Your task to perform on an android device: Open Youtube and go to "Your channel" Image 0: 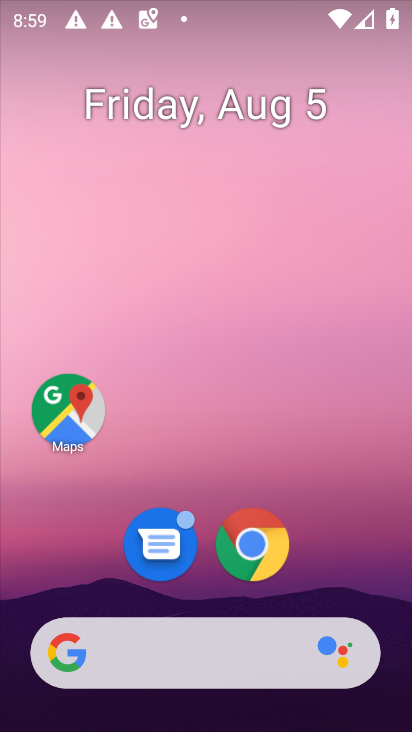
Step 0: drag from (315, 558) to (259, 62)
Your task to perform on an android device: Open Youtube and go to "Your channel" Image 1: 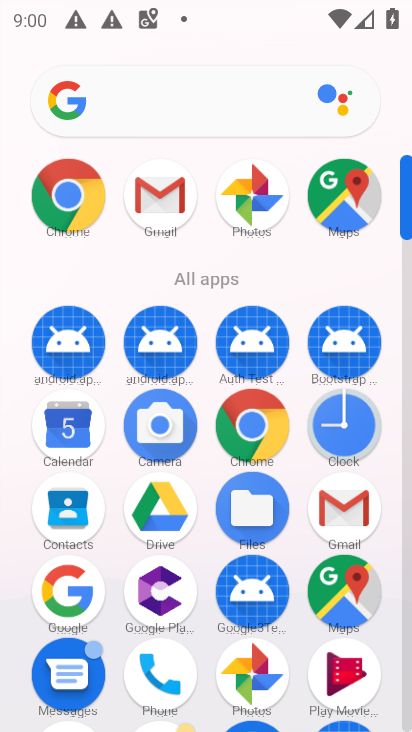
Step 1: drag from (407, 518) to (392, 134)
Your task to perform on an android device: Open Youtube and go to "Your channel" Image 2: 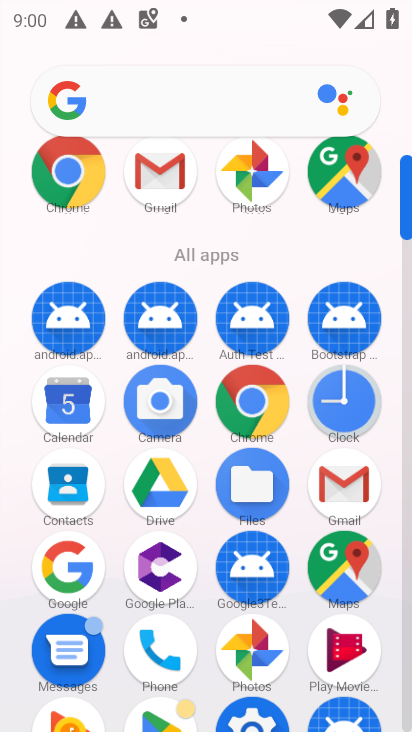
Step 2: drag from (391, 569) to (301, 245)
Your task to perform on an android device: Open Youtube and go to "Your channel" Image 3: 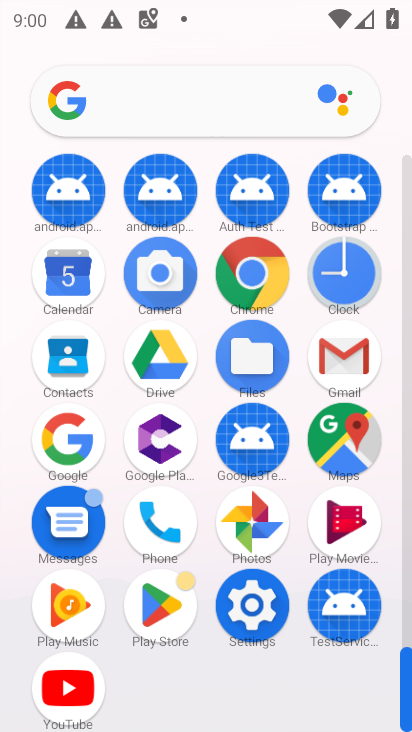
Step 3: click (84, 713)
Your task to perform on an android device: Open Youtube and go to "Your channel" Image 4: 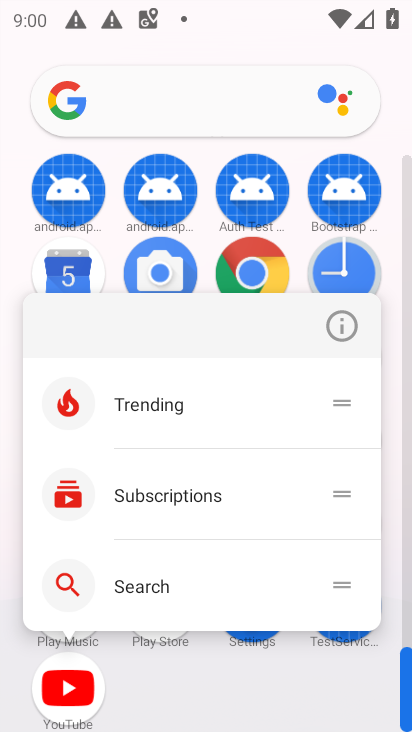
Step 4: click (78, 692)
Your task to perform on an android device: Open Youtube and go to "Your channel" Image 5: 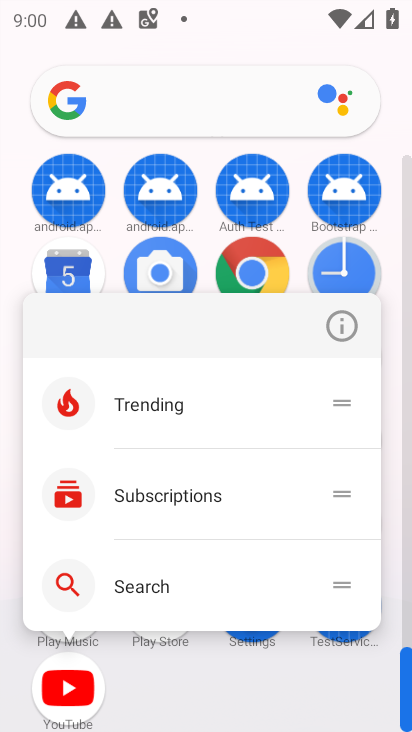
Step 5: click (71, 683)
Your task to perform on an android device: Open Youtube and go to "Your channel" Image 6: 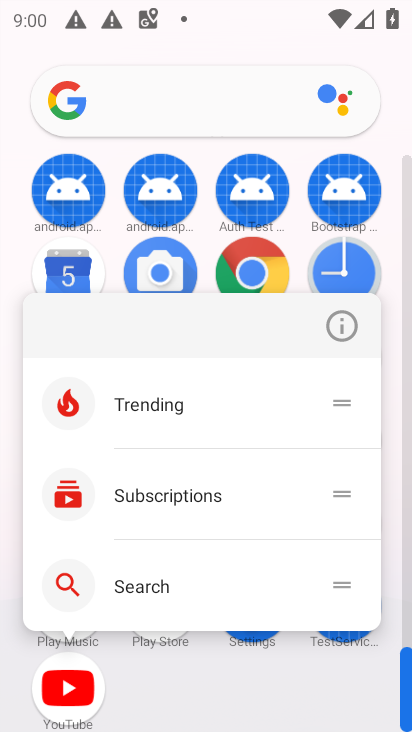
Step 6: click (65, 675)
Your task to perform on an android device: Open Youtube and go to "Your channel" Image 7: 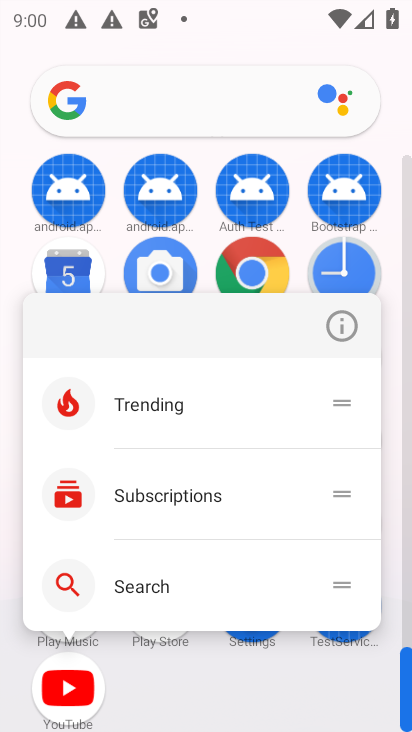
Step 7: click (65, 675)
Your task to perform on an android device: Open Youtube and go to "Your channel" Image 8: 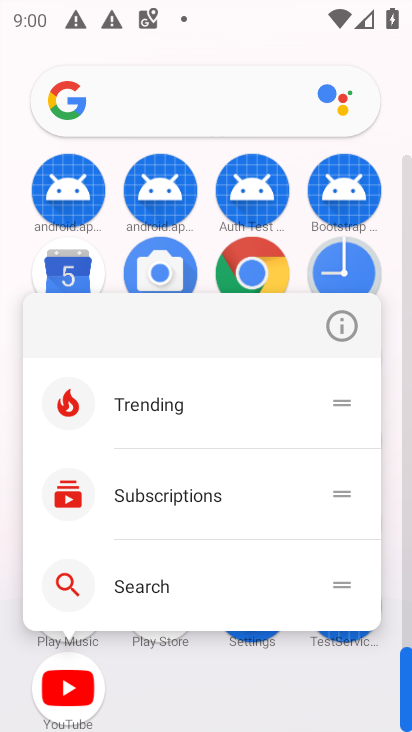
Step 8: click (65, 675)
Your task to perform on an android device: Open Youtube and go to "Your channel" Image 9: 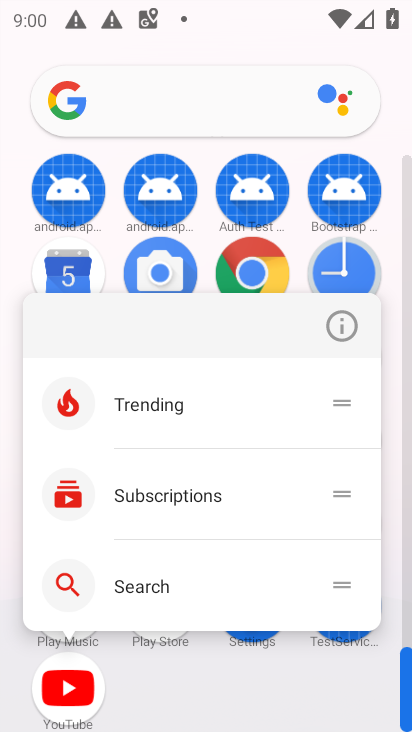
Step 9: click (61, 675)
Your task to perform on an android device: Open Youtube and go to "Your channel" Image 10: 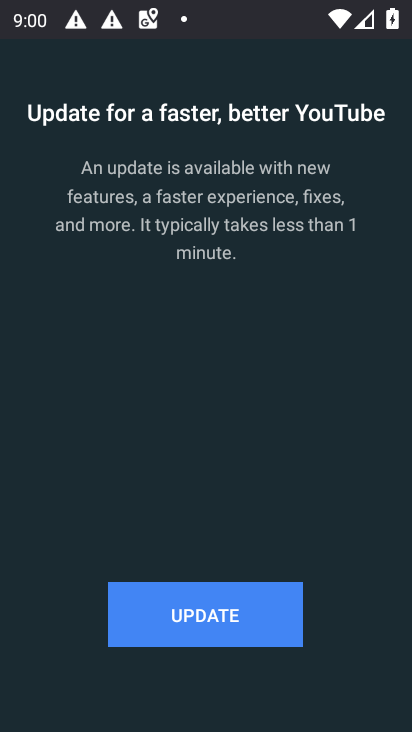
Step 10: click (203, 617)
Your task to perform on an android device: Open Youtube and go to "Your channel" Image 11: 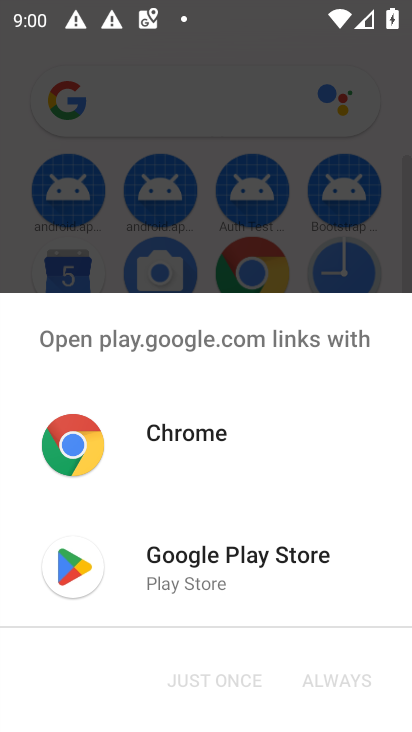
Step 11: click (186, 584)
Your task to perform on an android device: Open Youtube and go to "Your channel" Image 12: 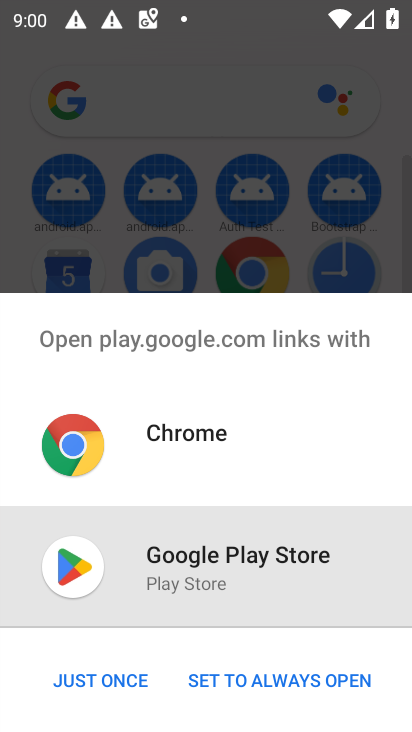
Step 12: click (90, 691)
Your task to perform on an android device: Open Youtube and go to "Your channel" Image 13: 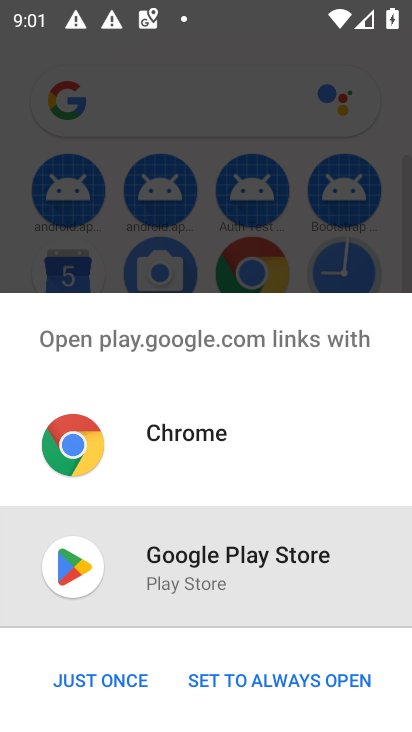
Step 13: click (110, 680)
Your task to perform on an android device: Open Youtube and go to "Your channel" Image 14: 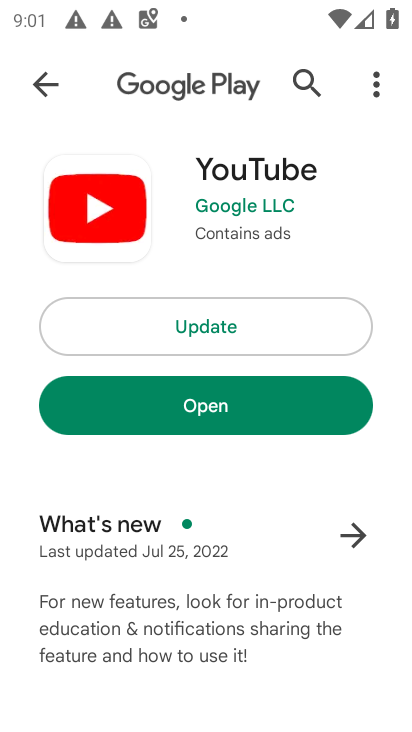
Step 14: click (235, 321)
Your task to perform on an android device: Open Youtube and go to "Your channel" Image 15: 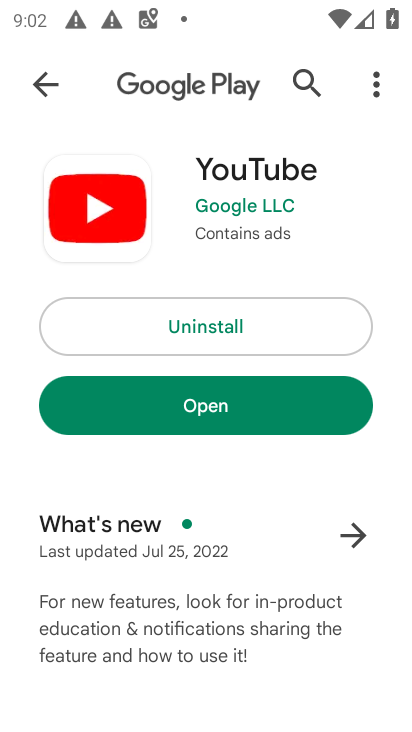
Step 15: click (215, 430)
Your task to perform on an android device: Open Youtube and go to "Your channel" Image 16: 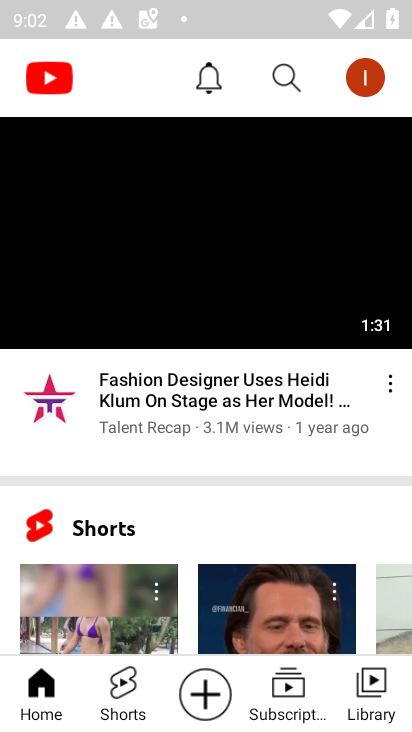
Step 16: click (358, 78)
Your task to perform on an android device: Open Youtube and go to "Your channel" Image 17: 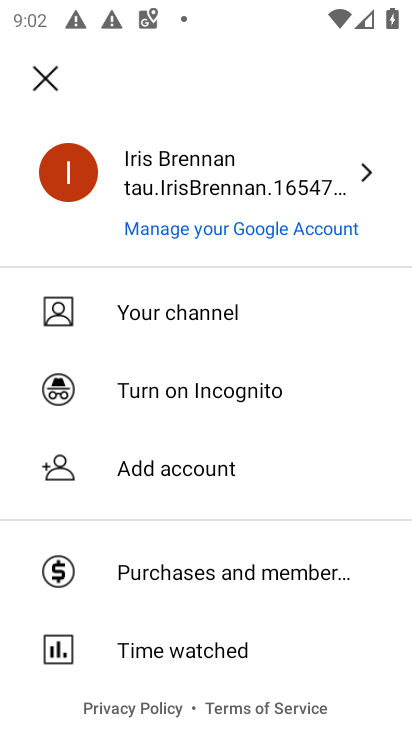
Step 17: click (201, 331)
Your task to perform on an android device: Open Youtube and go to "Your channel" Image 18: 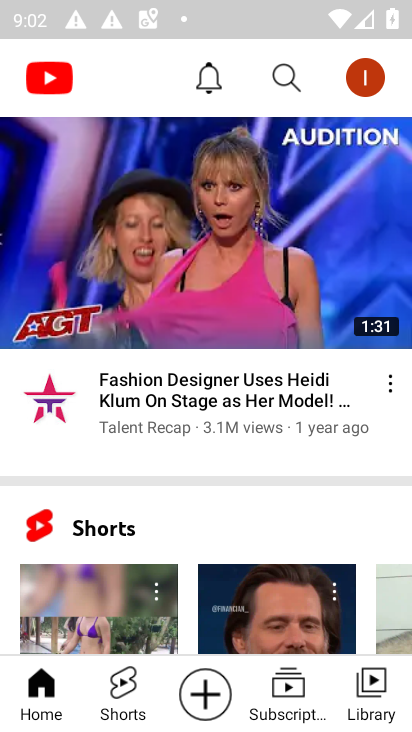
Step 18: task complete